Your task to perform on an android device: Open Amazon Image 0: 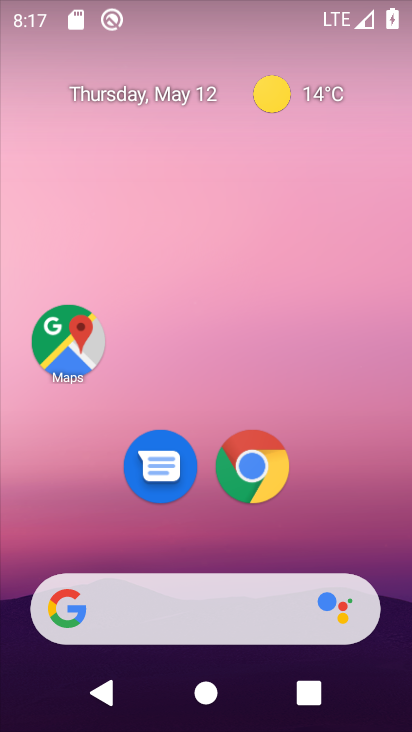
Step 0: click (230, 44)
Your task to perform on an android device: Open Amazon Image 1: 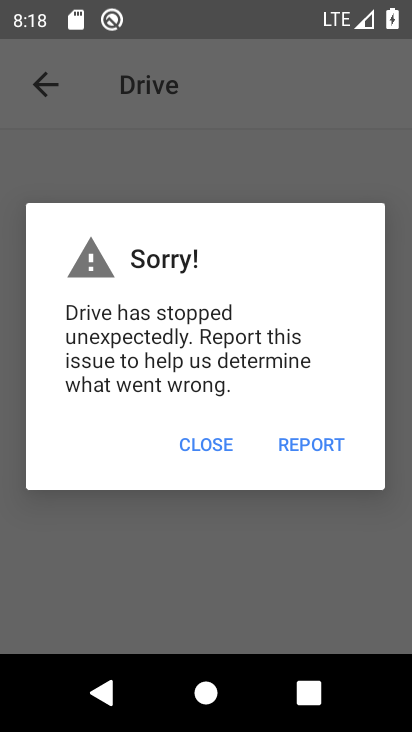
Step 1: press home button
Your task to perform on an android device: Open Amazon Image 2: 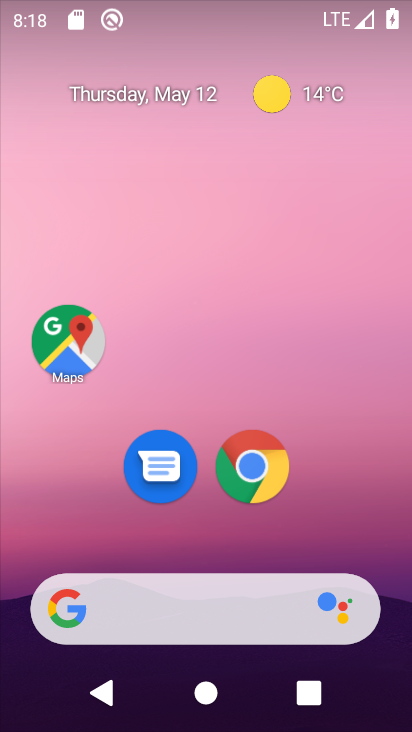
Step 2: click (248, 463)
Your task to perform on an android device: Open Amazon Image 3: 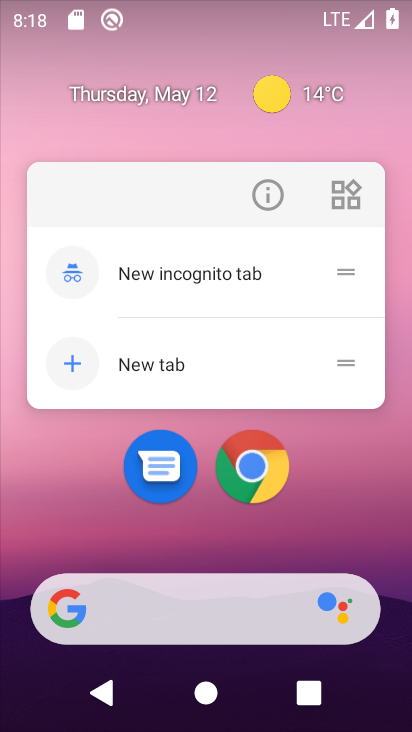
Step 3: click (264, 464)
Your task to perform on an android device: Open Amazon Image 4: 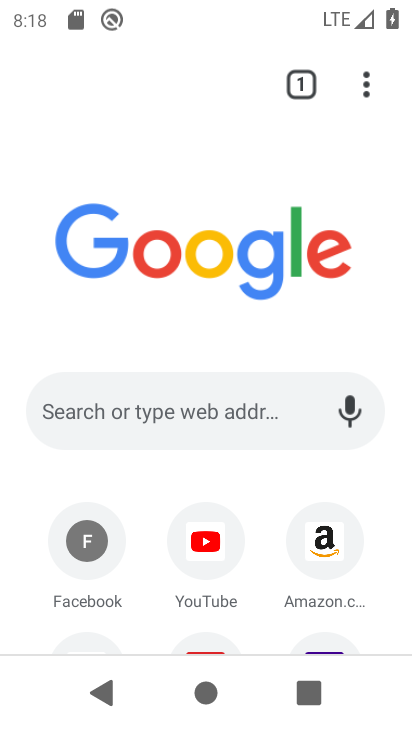
Step 4: click (324, 538)
Your task to perform on an android device: Open Amazon Image 5: 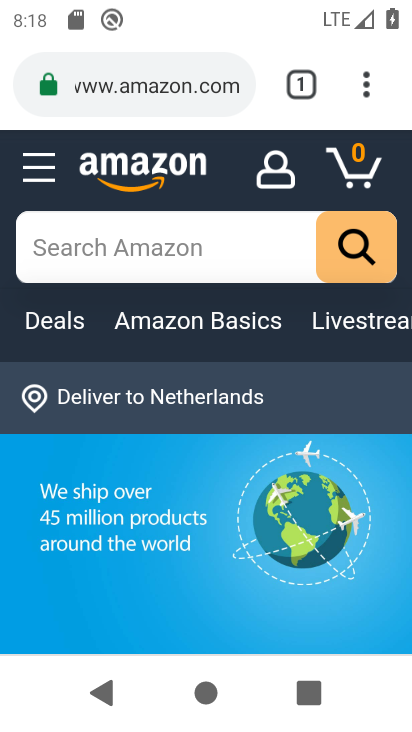
Step 5: task complete